Your task to perform on an android device: delete a single message in the gmail app Image 0: 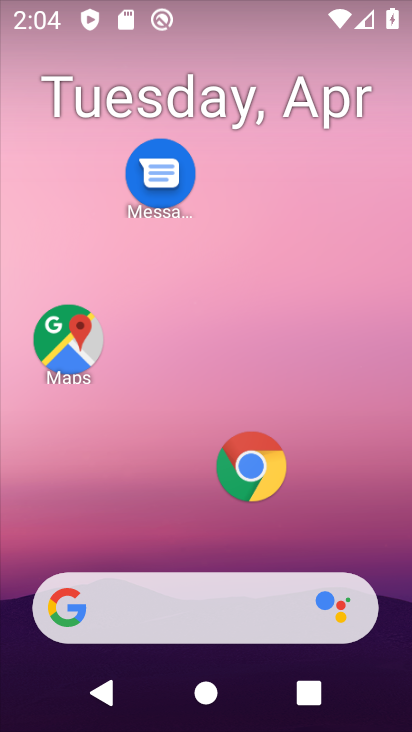
Step 0: drag from (211, 716) to (218, 147)
Your task to perform on an android device: delete a single message in the gmail app Image 1: 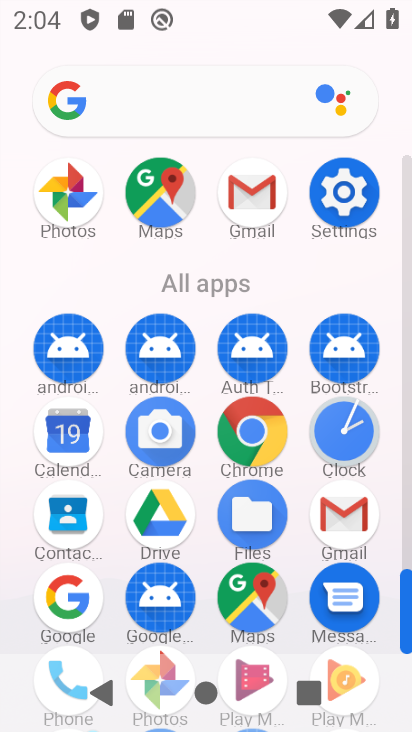
Step 1: click (260, 195)
Your task to perform on an android device: delete a single message in the gmail app Image 2: 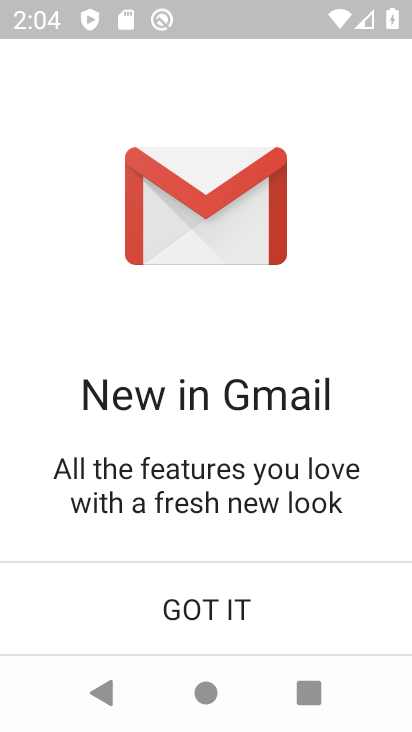
Step 2: click (202, 606)
Your task to perform on an android device: delete a single message in the gmail app Image 3: 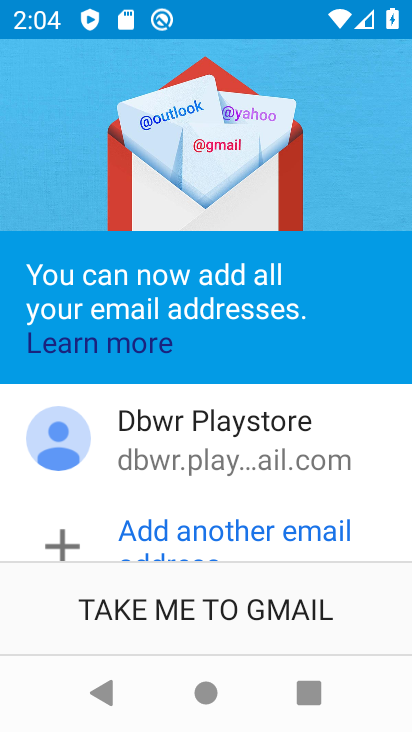
Step 3: click (202, 606)
Your task to perform on an android device: delete a single message in the gmail app Image 4: 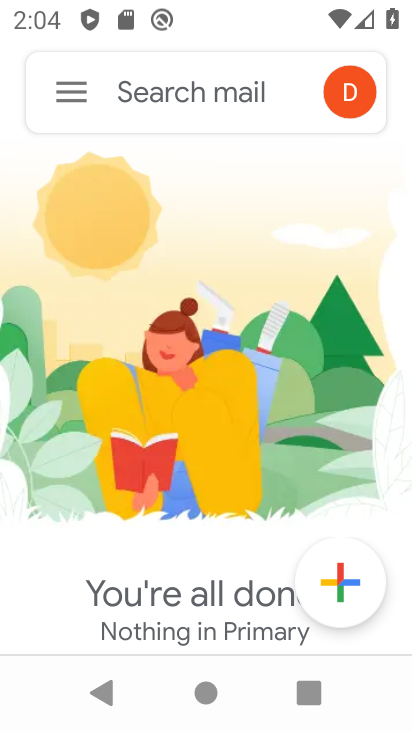
Step 4: task complete